Your task to perform on an android device: Play the last video I watched on Youtube Image 0: 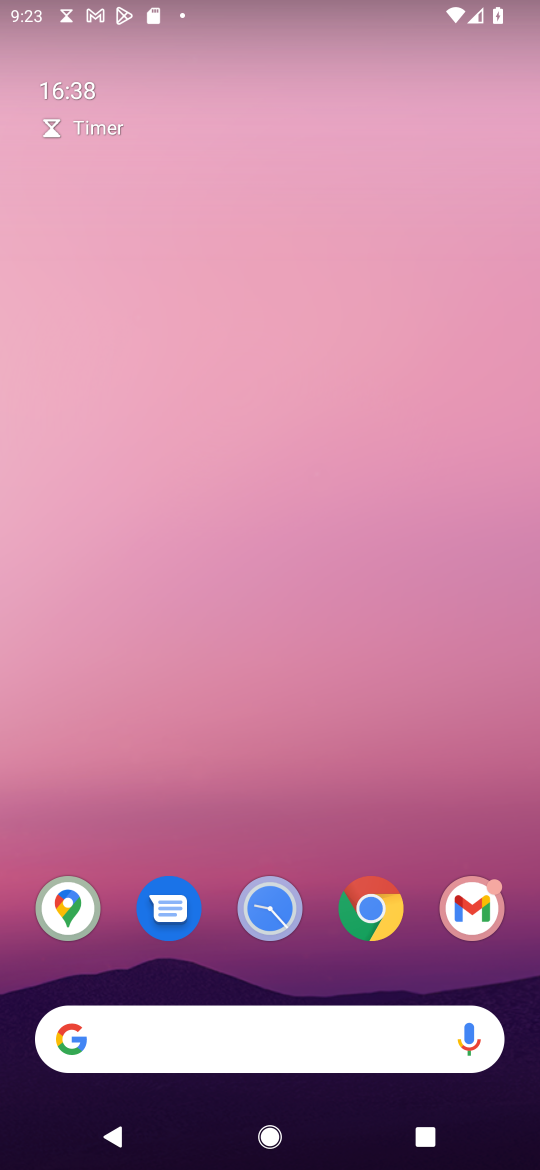
Step 0: drag from (275, 1031) to (321, 487)
Your task to perform on an android device: Play the last video I watched on Youtube Image 1: 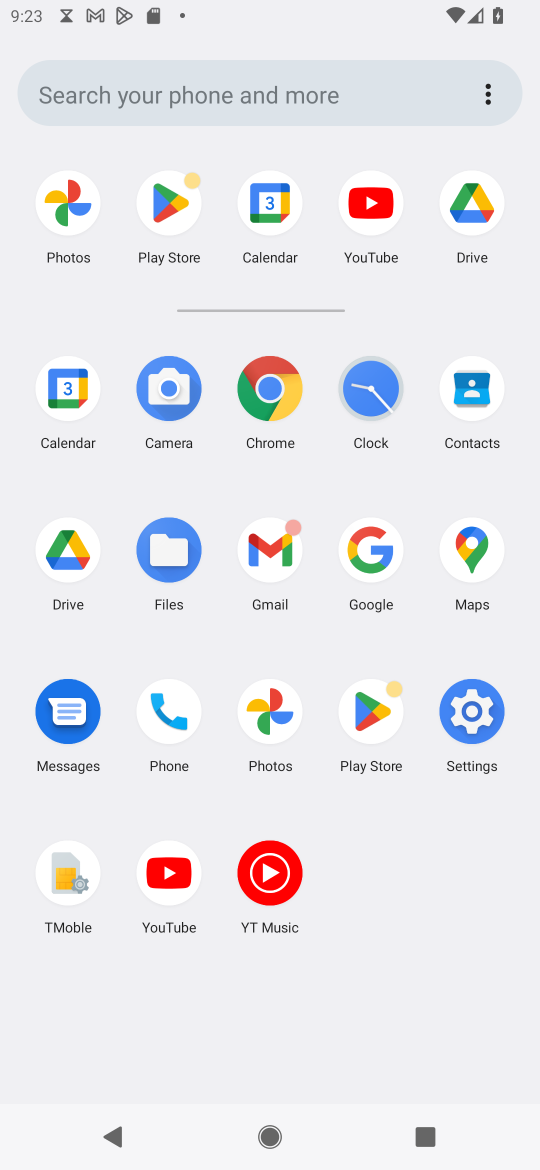
Step 1: click (164, 890)
Your task to perform on an android device: Play the last video I watched on Youtube Image 2: 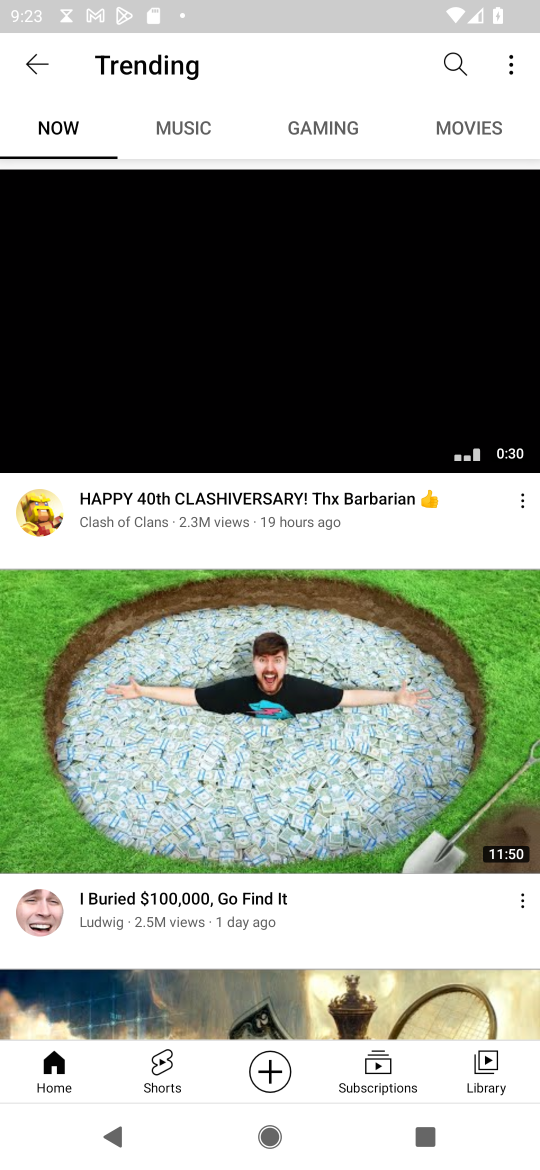
Step 2: click (495, 1073)
Your task to perform on an android device: Play the last video I watched on Youtube Image 3: 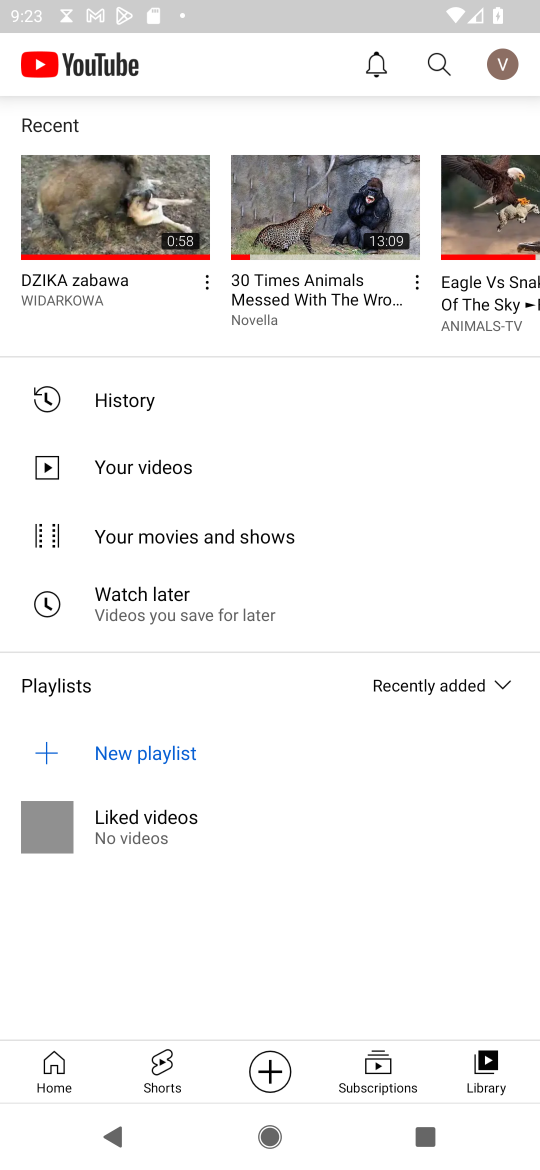
Step 3: click (78, 224)
Your task to perform on an android device: Play the last video I watched on Youtube Image 4: 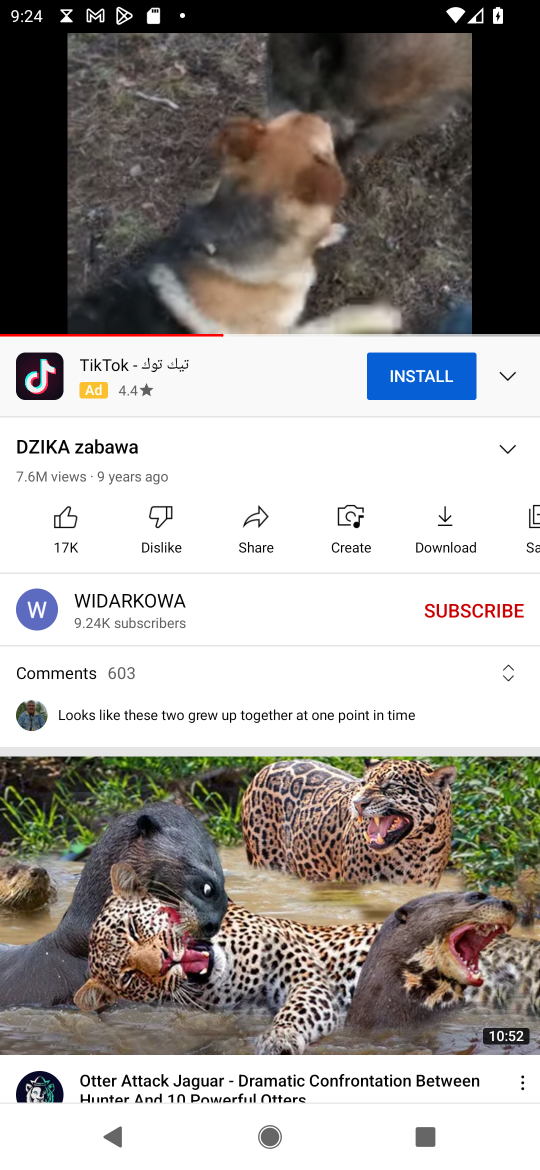
Step 4: task complete